Your task to perform on an android device: clear history in the chrome app Image 0: 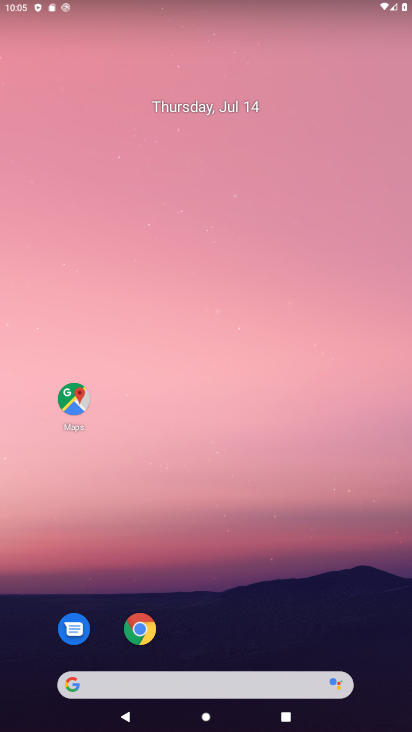
Step 0: drag from (201, 676) to (247, 308)
Your task to perform on an android device: clear history in the chrome app Image 1: 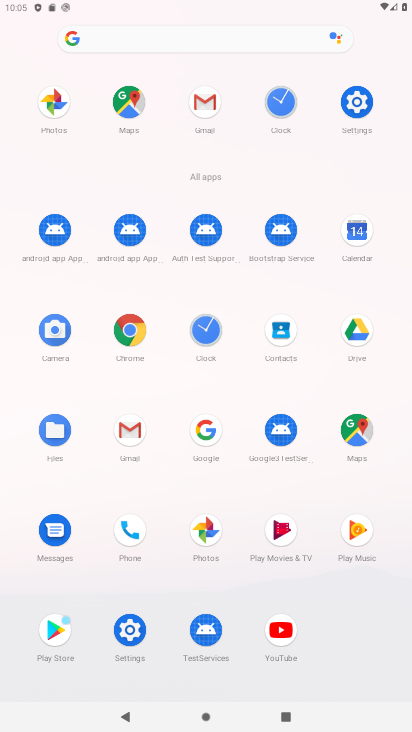
Step 1: click (135, 335)
Your task to perform on an android device: clear history in the chrome app Image 2: 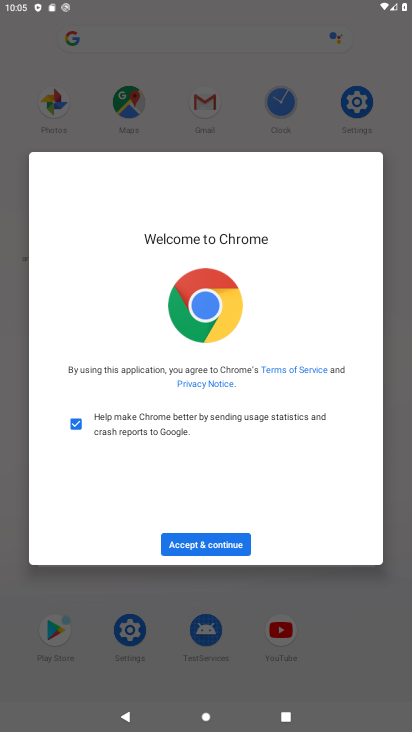
Step 2: click (205, 543)
Your task to perform on an android device: clear history in the chrome app Image 3: 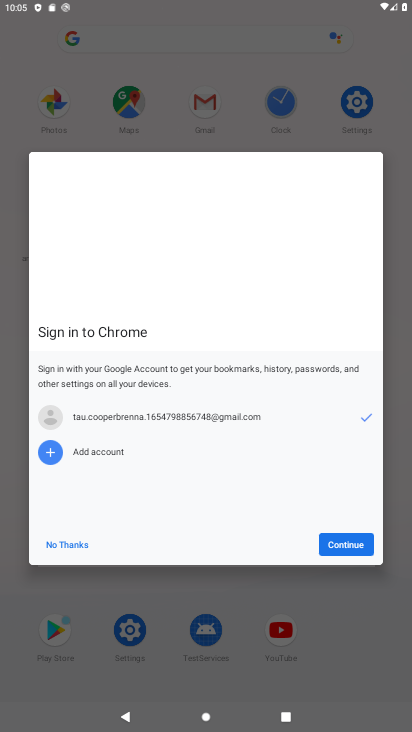
Step 3: click (344, 540)
Your task to perform on an android device: clear history in the chrome app Image 4: 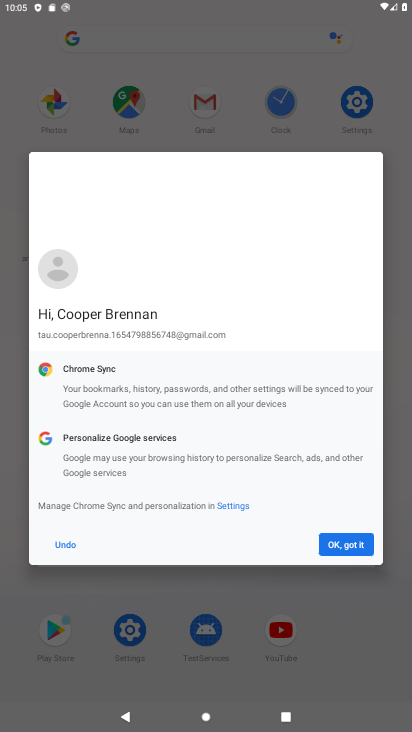
Step 4: click (344, 540)
Your task to perform on an android device: clear history in the chrome app Image 5: 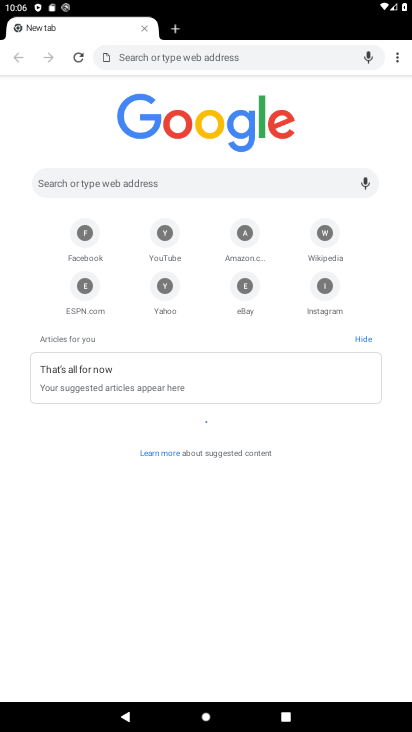
Step 5: click (399, 58)
Your task to perform on an android device: clear history in the chrome app Image 6: 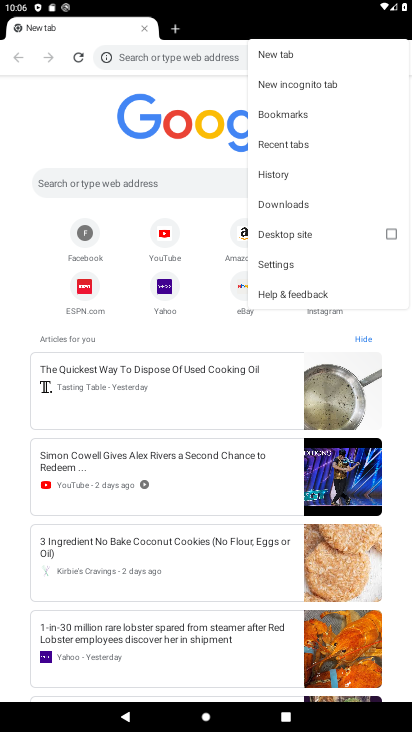
Step 6: click (270, 263)
Your task to perform on an android device: clear history in the chrome app Image 7: 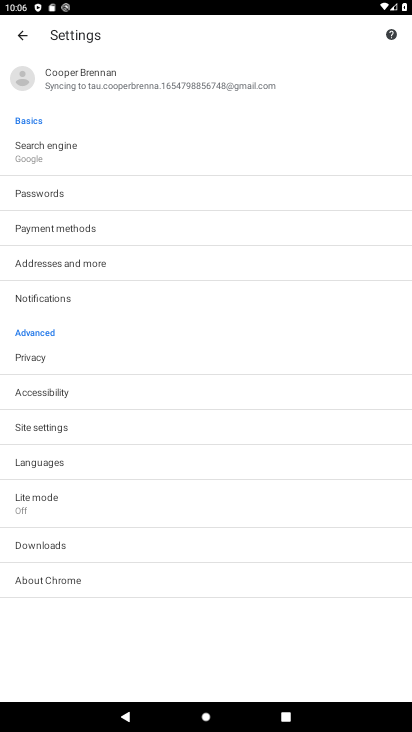
Step 7: click (50, 352)
Your task to perform on an android device: clear history in the chrome app Image 8: 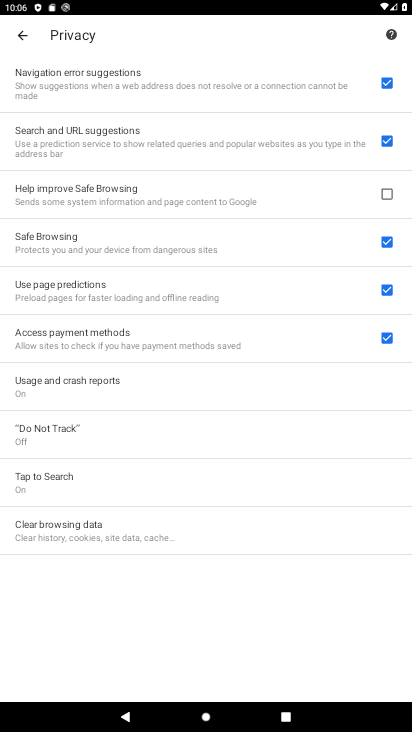
Step 8: click (34, 528)
Your task to perform on an android device: clear history in the chrome app Image 9: 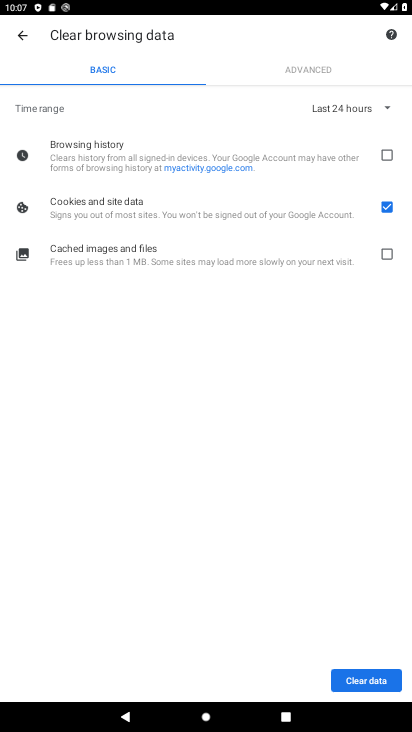
Step 9: click (382, 156)
Your task to perform on an android device: clear history in the chrome app Image 10: 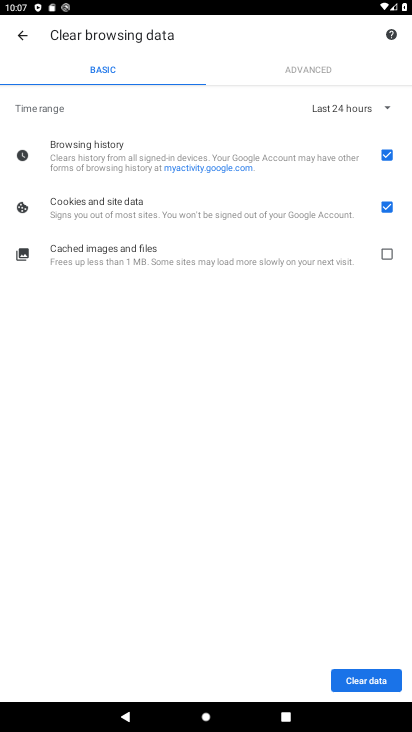
Step 10: click (384, 256)
Your task to perform on an android device: clear history in the chrome app Image 11: 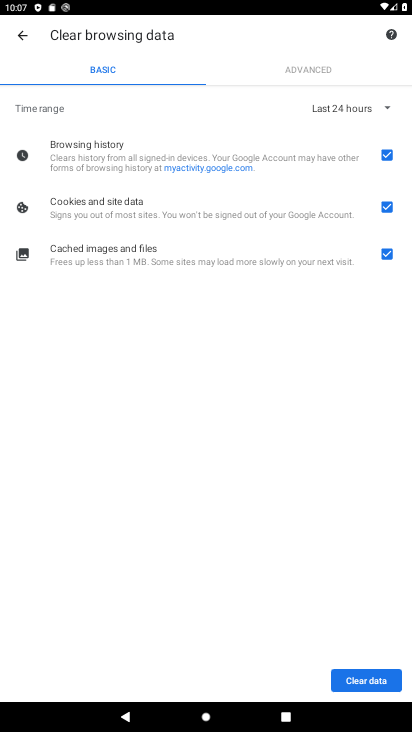
Step 11: click (397, 106)
Your task to perform on an android device: clear history in the chrome app Image 12: 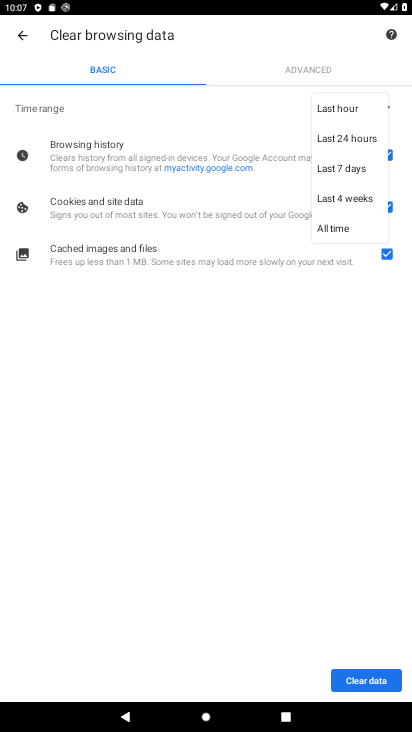
Step 12: click (331, 224)
Your task to perform on an android device: clear history in the chrome app Image 13: 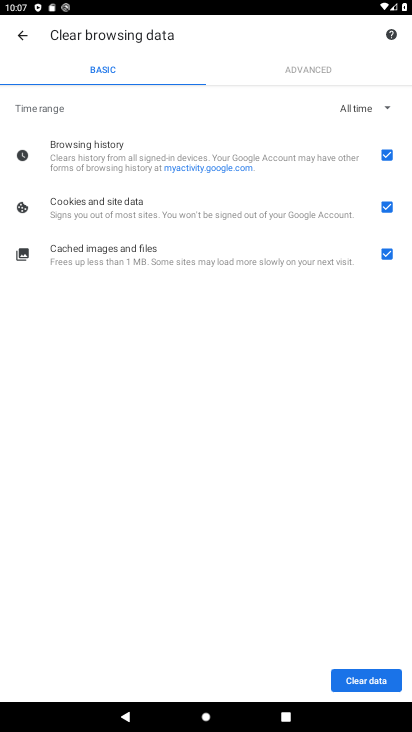
Step 13: click (384, 678)
Your task to perform on an android device: clear history in the chrome app Image 14: 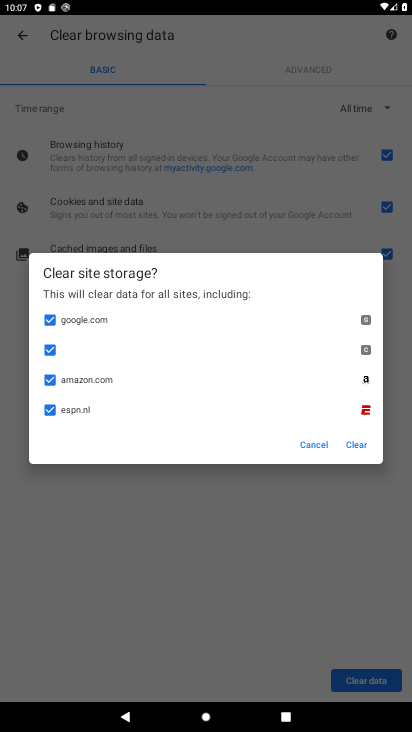
Step 14: click (359, 439)
Your task to perform on an android device: clear history in the chrome app Image 15: 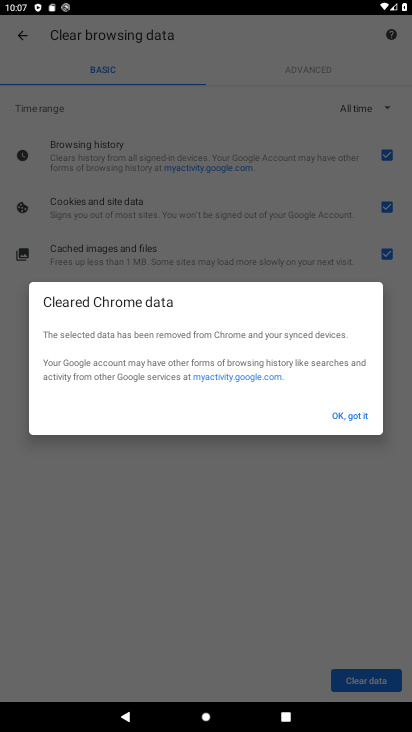
Step 15: click (361, 413)
Your task to perform on an android device: clear history in the chrome app Image 16: 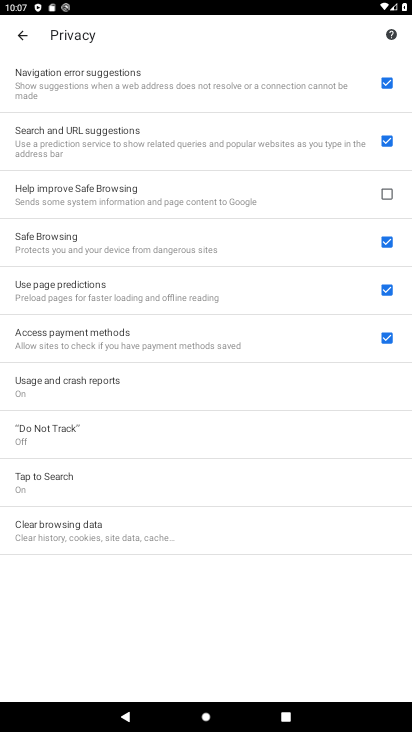
Step 16: task complete